Your task to perform on an android device: Do I have any events this weekend? Image 0: 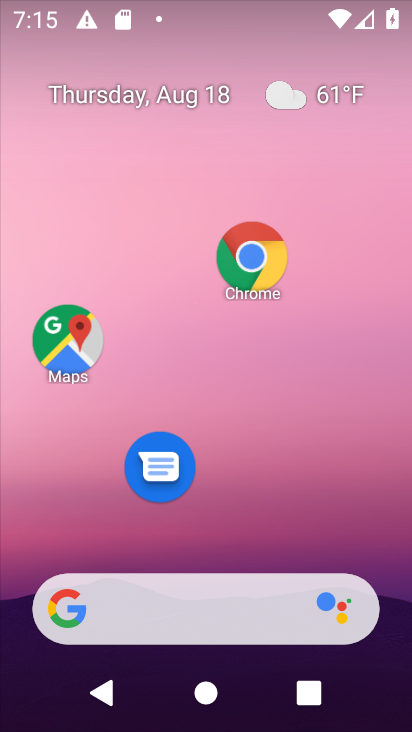
Step 0: drag from (205, 727) to (78, 725)
Your task to perform on an android device: Do I have any events this weekend? Image 1: 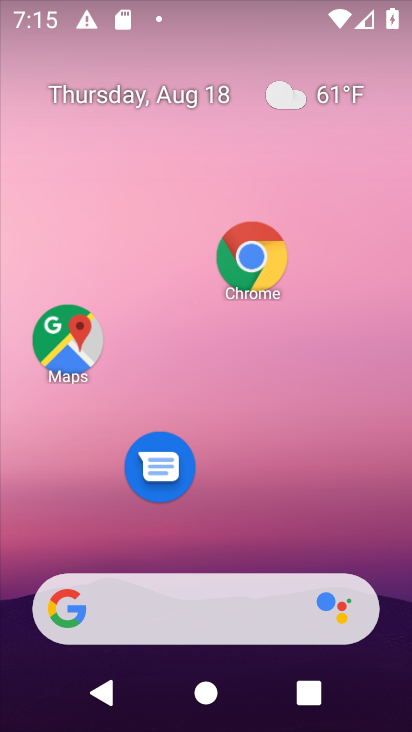
Step 1: click (259, 617)
Your task to perform on an android device: Do I have any events this weekend? Image 2: 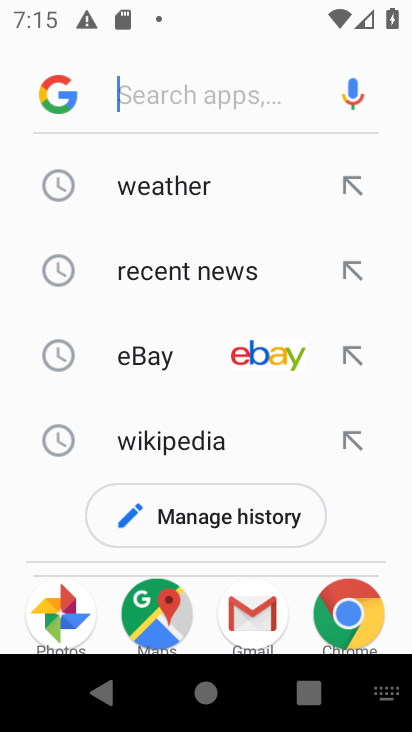
Step 2: type " Do I have any events this weekend?"
Your task to perform on an android device: Do I have any events this weekend? Image 3: 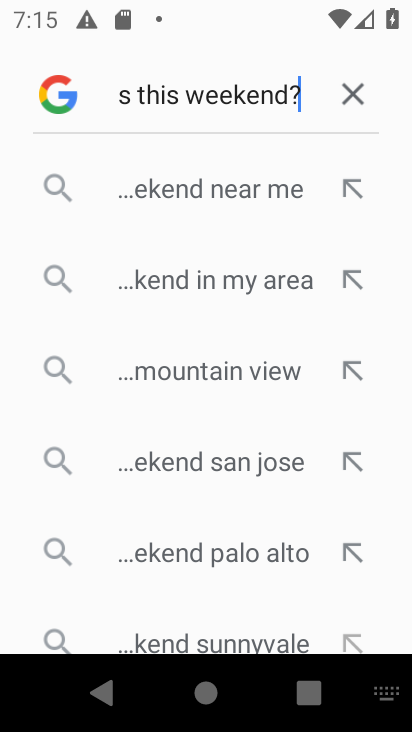
Step 3: press enter
Your task to perform on an android device: Do I have any events this weekend? Image 4: 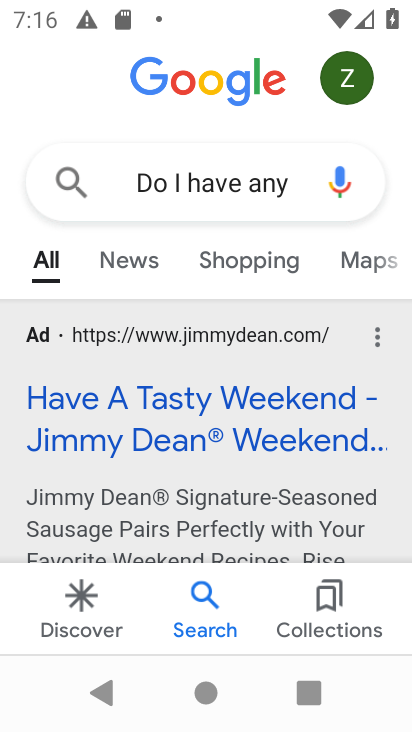
Step 4: task complete